Your task to perform on an android device: change text size in settings app Image 0: 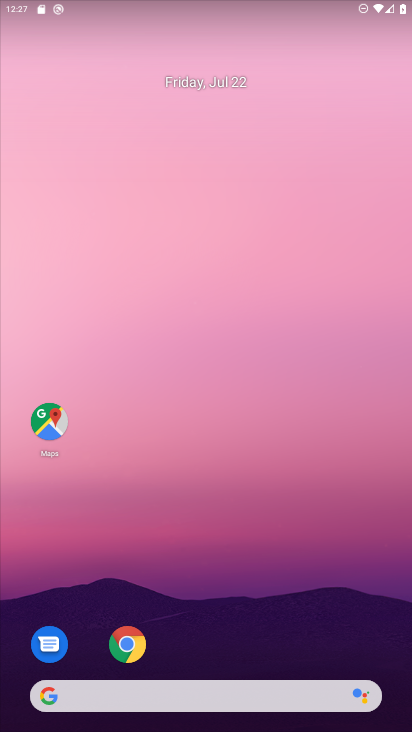
Step 0: drag from (217, 647) to (183, 177)
Your task to perform on an android device: change text size in settings app Image 1: 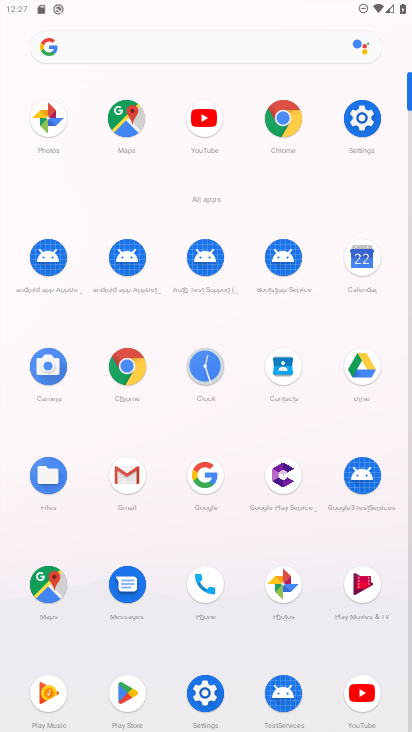
Step 1: click (378, 114)
Your task to perform on an android device: change text size in settings app Image 2: 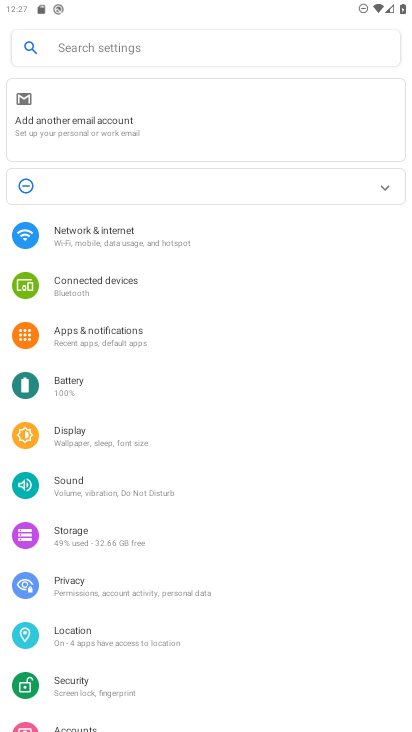
Step 2: click (110, 450)
Your task to perform on an android device: change text size in settings app Image 3: 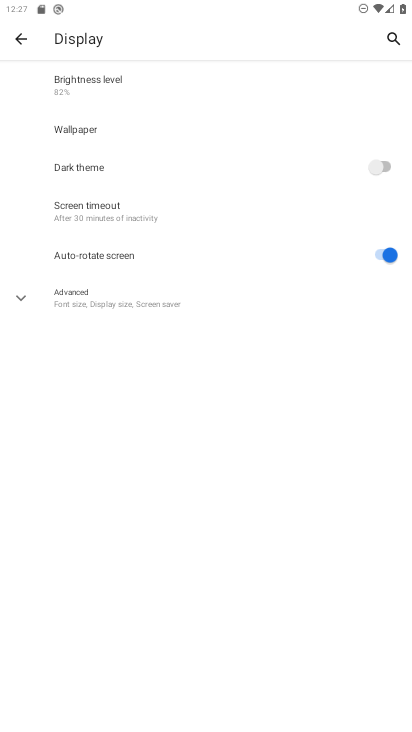
Step 3: click (148, 310)
Your task to perform on an android device: change text size in settings app Image 4: 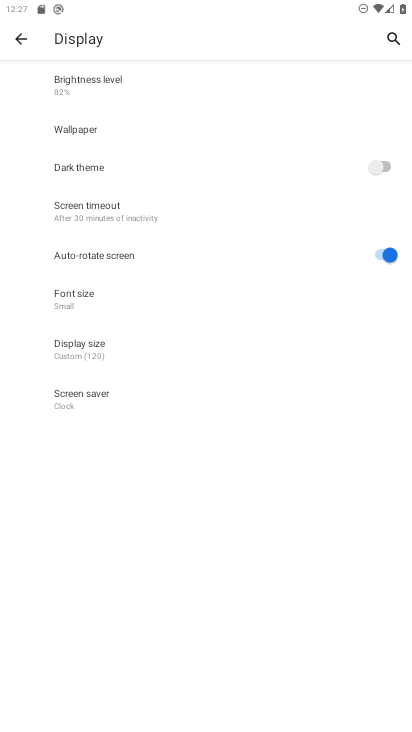
Step 4: click (148, 310)
Your task to perform on an android device: change text size in settings app Image 5: 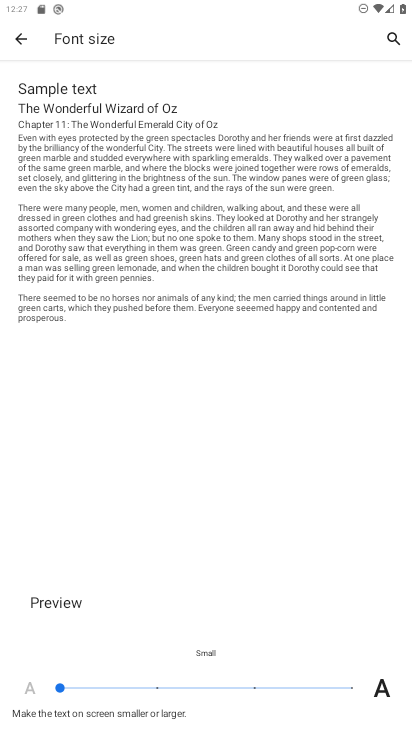
Step 5: click (155, 689)
Your task to perform on an android device: change text size in settings app Image 6: 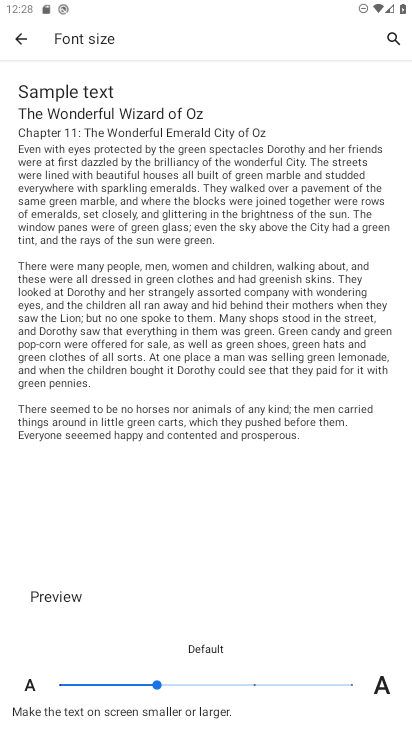
Step 6: task complete